Your task to perform on an android device: Open the phone app and click the voicemail tab. Image 0: 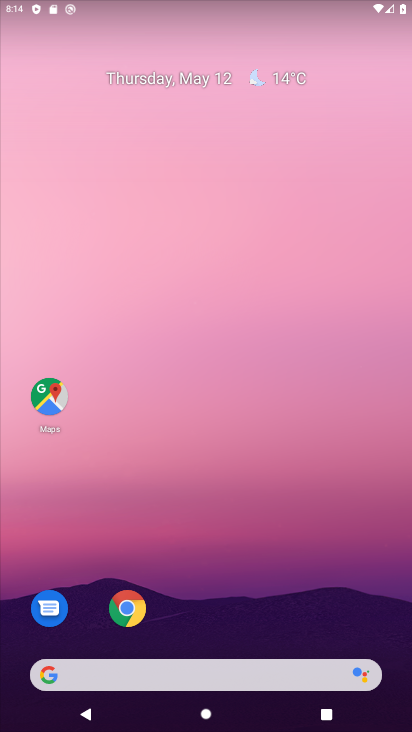
Step 0: drag from (205, 686) to (184, 187)
Your task to perform on an android device: Open the phone app and click the voicemail tab. Image 1: 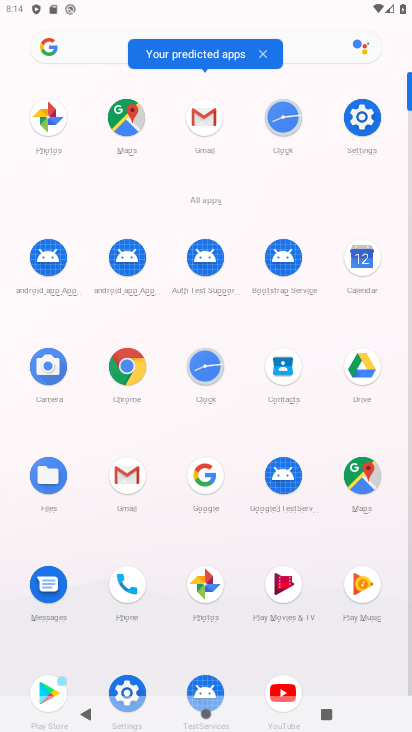
Step 1: click (112, 576)
Your task to perform on an android device: Open the phone app and click the voicemail tab. Image 2: 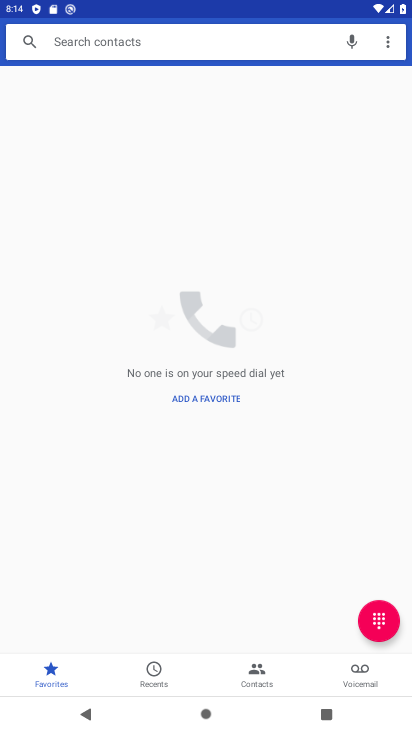
Step 2: click (381, 670)
Your task to perform on an android device: Open the phone app and click the voicemail tab. Image 3: 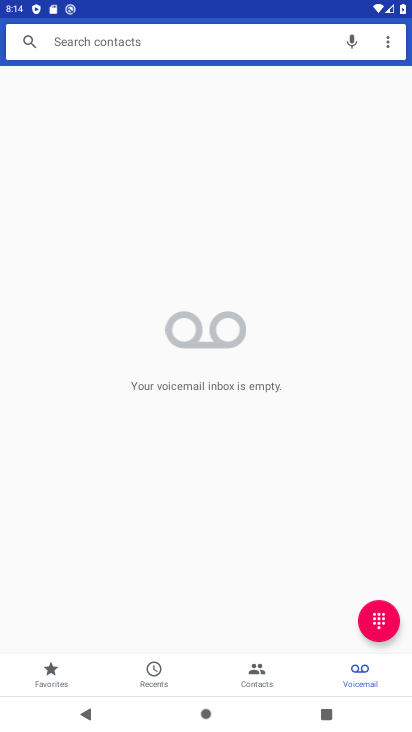
Step 3: task complete